Your task to perform on an android device: Open my contact list Image 0: 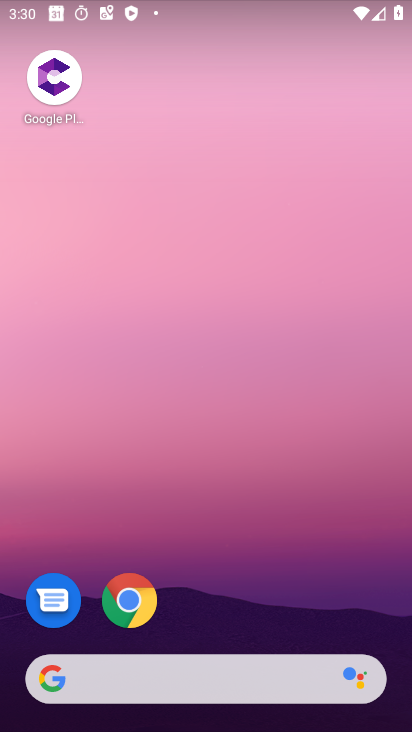
Step 0: drag from (272, 485) to (226, 163)
Your task to perform on an android device: Open my contact list Image 1: 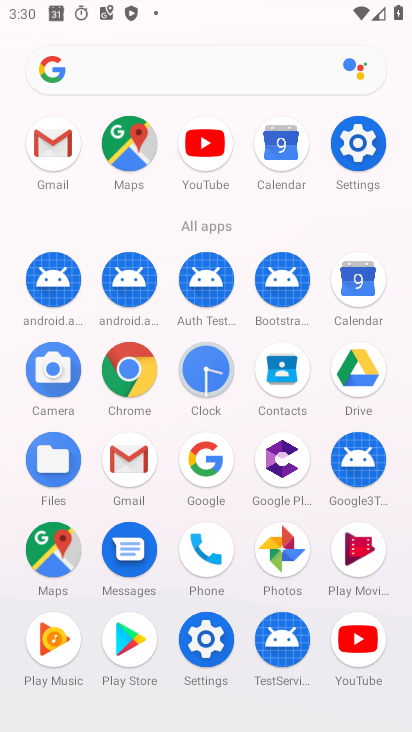
Step 1: click (276, 370)
Your task to perform on an android device: Open my contact list Image 2: 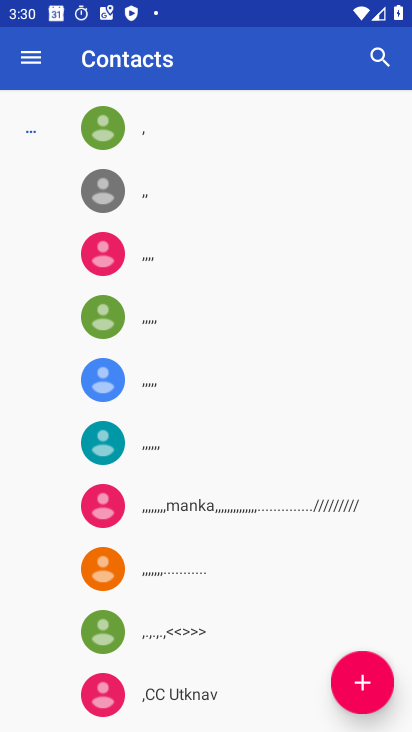
Step 2: task complete